Your task to perform on an android device: Go to wifi settings Image 0: 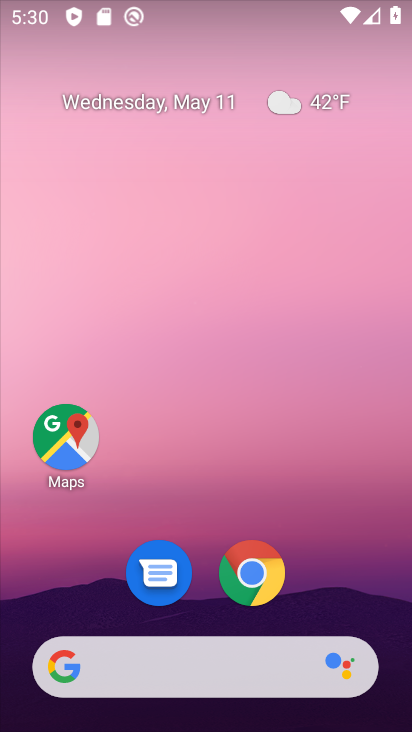
Step 0: drag from (309, 609) to (278, 283)
Your task to perform on an android device: Go to wifi settings Image 1: 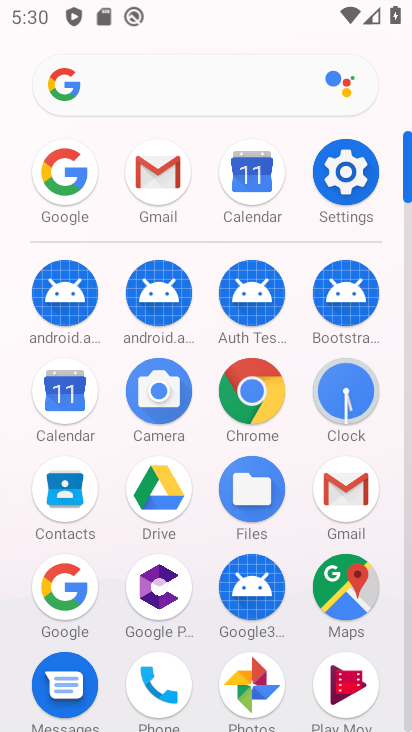
Step 1: click (358, 215)
Your task to perform on an android device: Go to wifi settings Image 2: 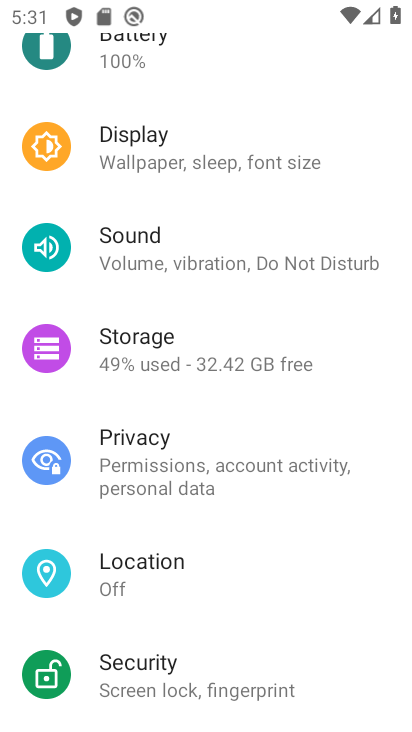
Step 2: drag from (228, 222) to (228, 605)
Your task to perform on an android device: Go to wifi settings Image 3: 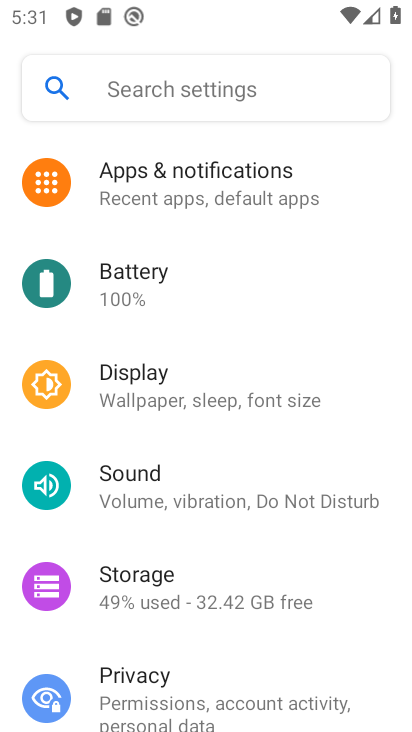
Step 3: drag from (179, 213) to (179, 543)
Your task to perform on an android device: Go to wifi settings Image 4: 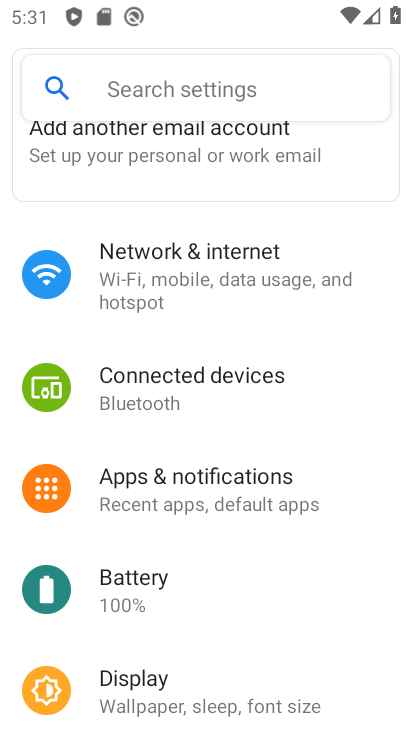
Step 4: click (191, 260)
Your task to perform on an android device: Go to wifi settings Image 5: 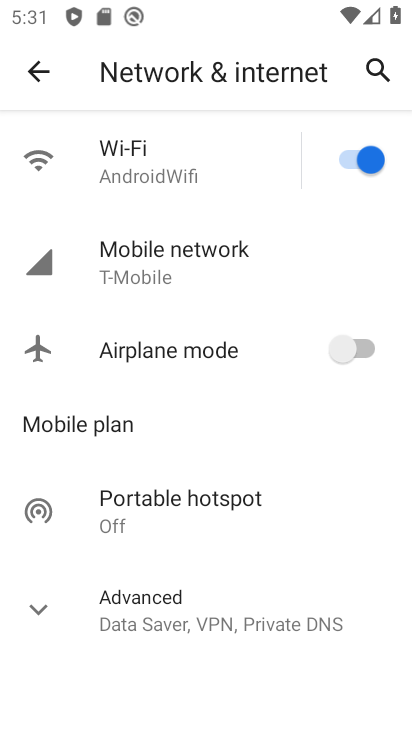
Step 5: click (187, 156)
Your task to perform on an android device: Go to wifi settings Image 6: 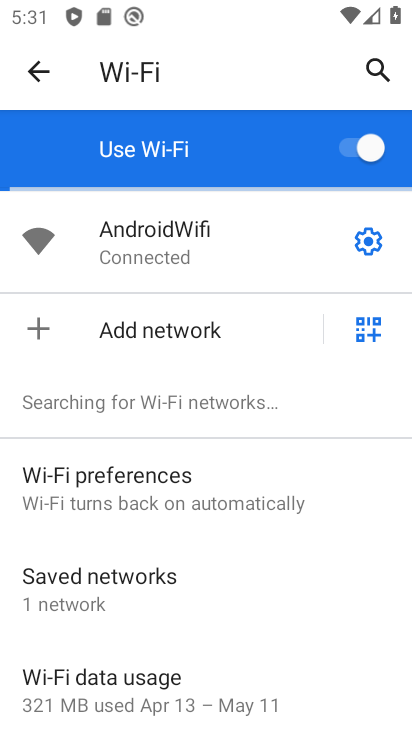
Step 6: task complete